Your task to perform on an android device: turn on javascript in the chrome app Image 0: 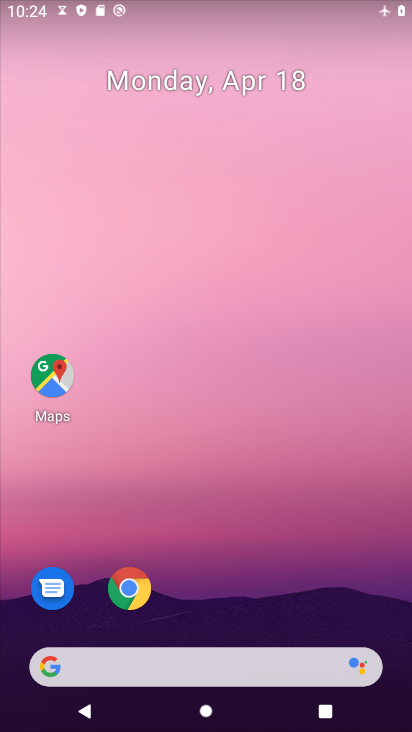
Step 0: drag from (305, 468) to (187, 0)
Your task to perform on an android device: turn on javascript in the chrome app Image 1: 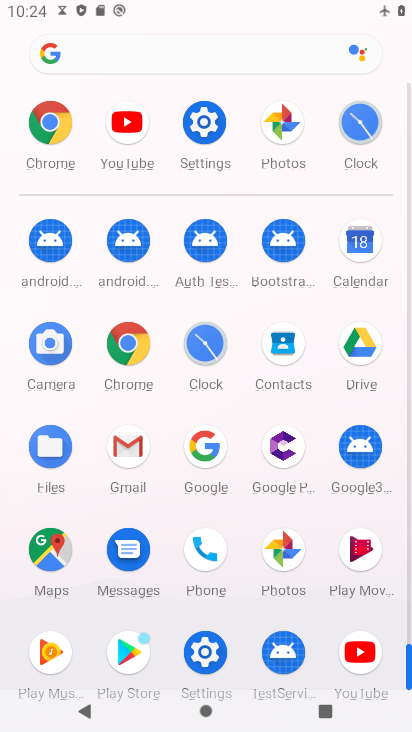
Step 1: click (51, 121)
Your task to perform on an android device: turn on javascript in the chrome app Image 2: 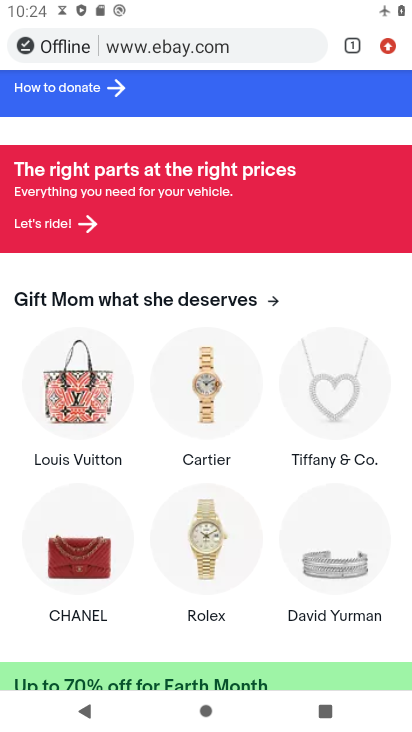
Step 2: drag from (392, 46) to (243, 575)
Your task to perform on an android device: turn on javascript in the chrome app Image 3: 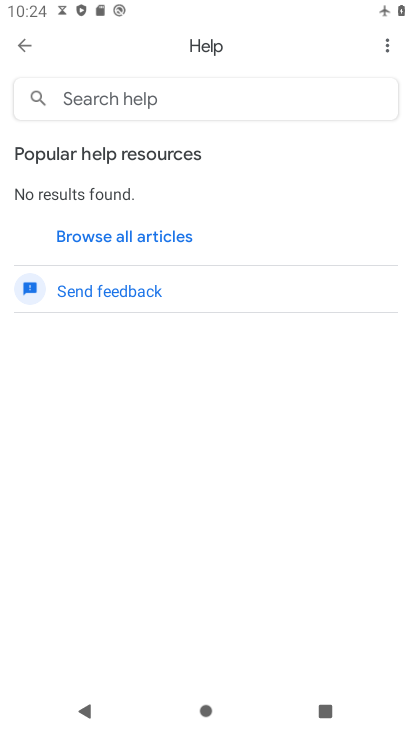
Step 3: click (24, 51)
Your task to perform on an android device: turn on javascript in the chrome app Image 4: 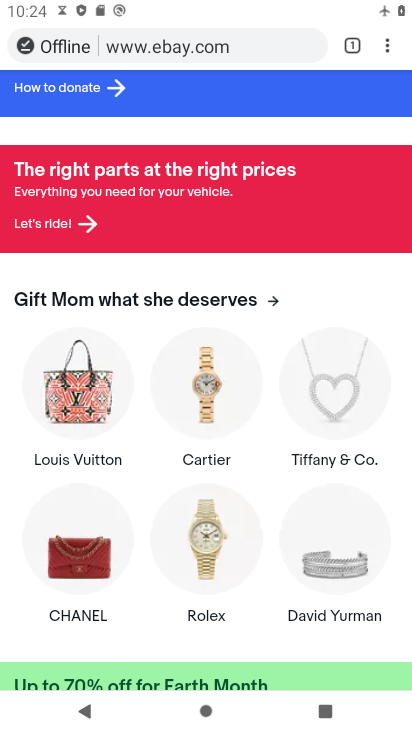
Step 4: drag from (385, 49) to (244, 549)
Your task to perform on an android device: turn on javascript in the chrome app Image 5: 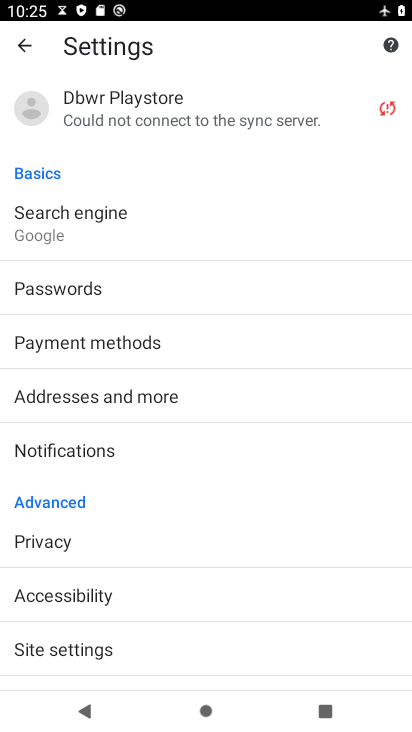
Step 5: click (66, 647)
Your task to perform on an android device: turn on javascript in the chrome app Image 6: 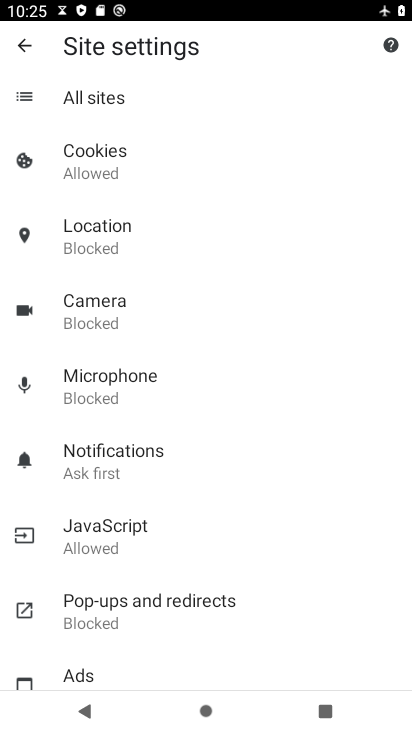
Step 6: drag from (275, 503) to (267, 205)
Your task to perform on an android device: turn on javascript in the chrome app Image 7: 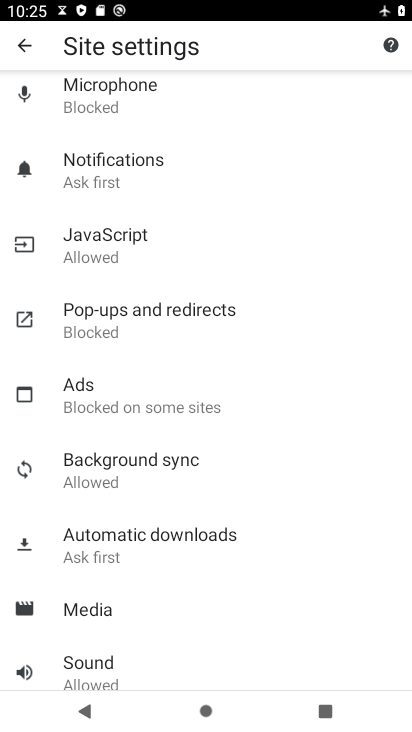
Step 7: click (154, 247)
Your task to perform on an android device: turn on javascript in the chrome app Image 8: 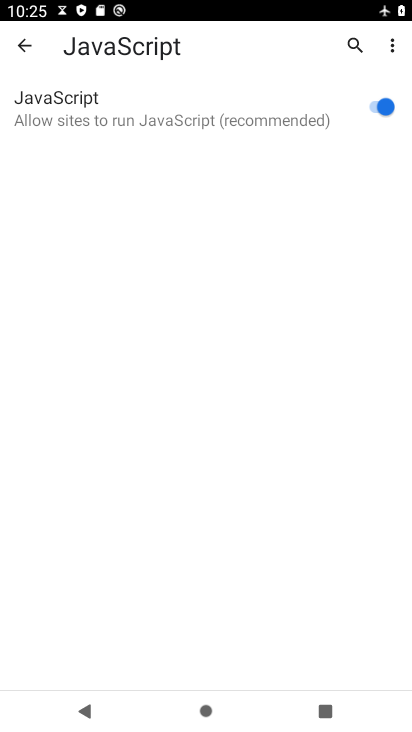
Step 8: task complete